Your task to perform on an android device: install app "Google Find My Device" Image 0: 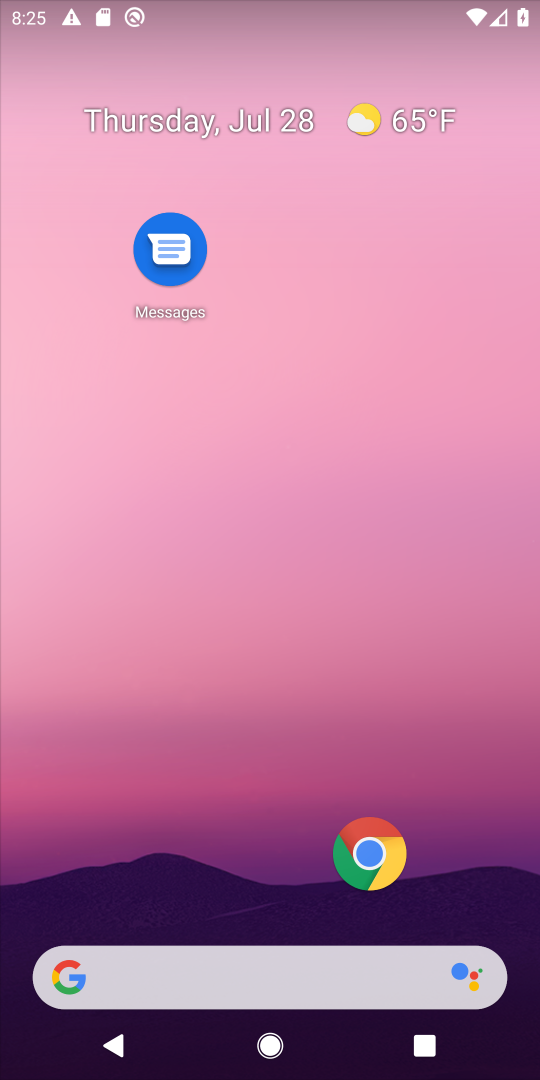
Step 0: drag from (257, 719) to (255, 75)
Your task to perform on an android device: install app "Google Find My Device" Image 1: 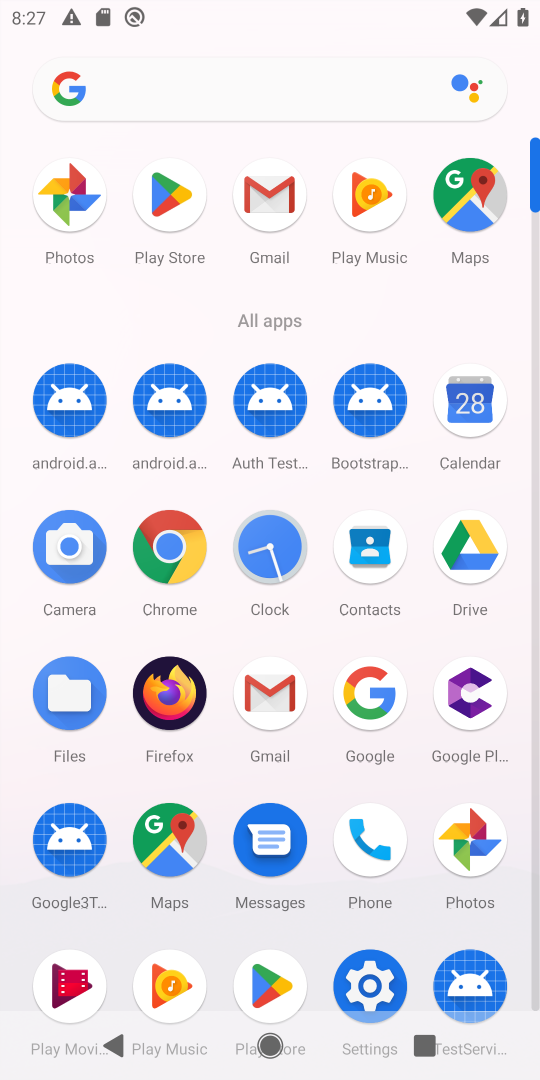
Step 1: click (276, 981)
Your task to perform on an android device: install app "Google Find My Device" Image 2: 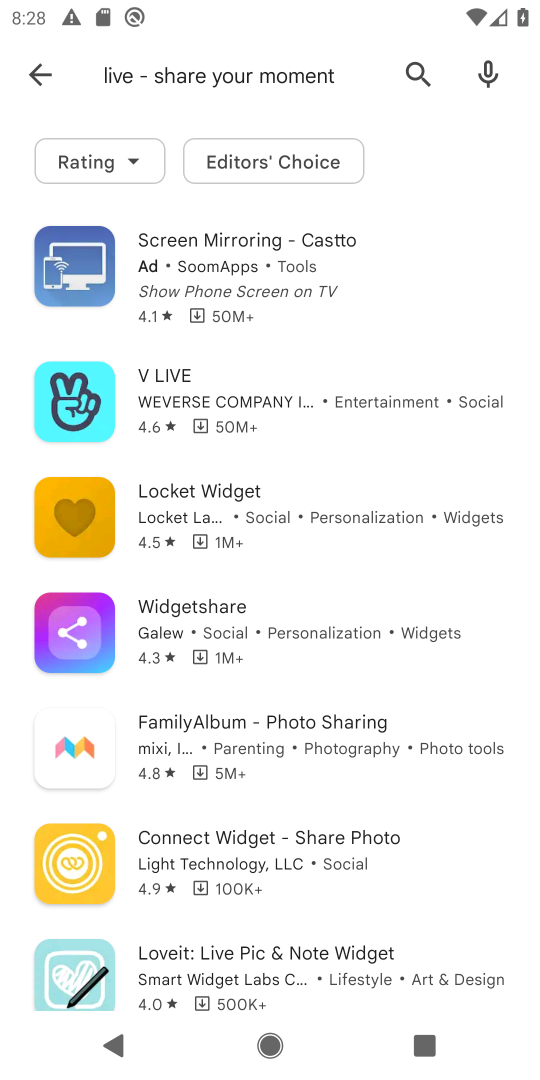
Step 2: click (38, 86)
Your task to perform on an android device: install app "Google Find My Device" Image 3: 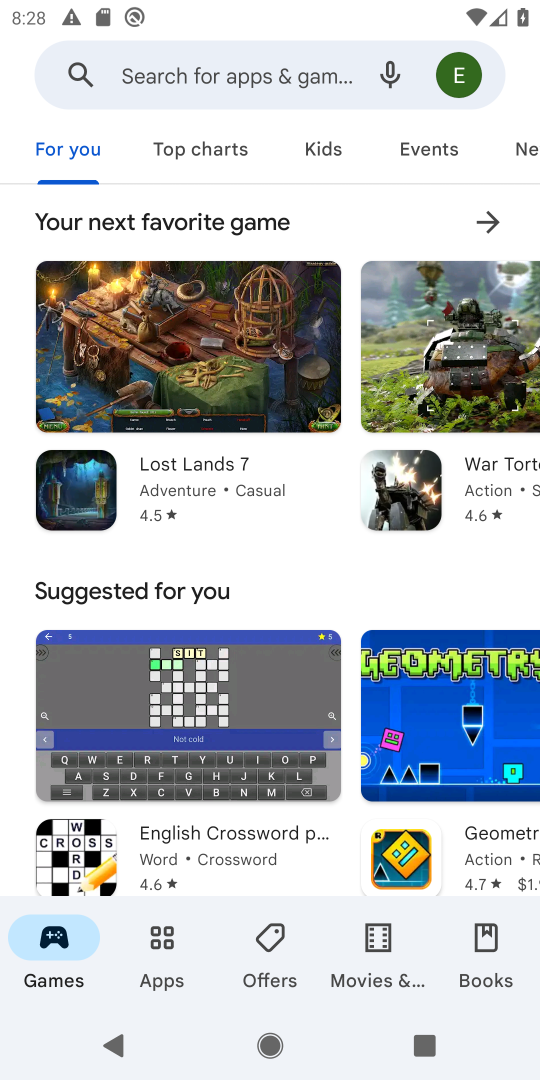
Step 3: click (172, 60)
Your task to perform on an android device: install app "Google Find My Device" Image 4: 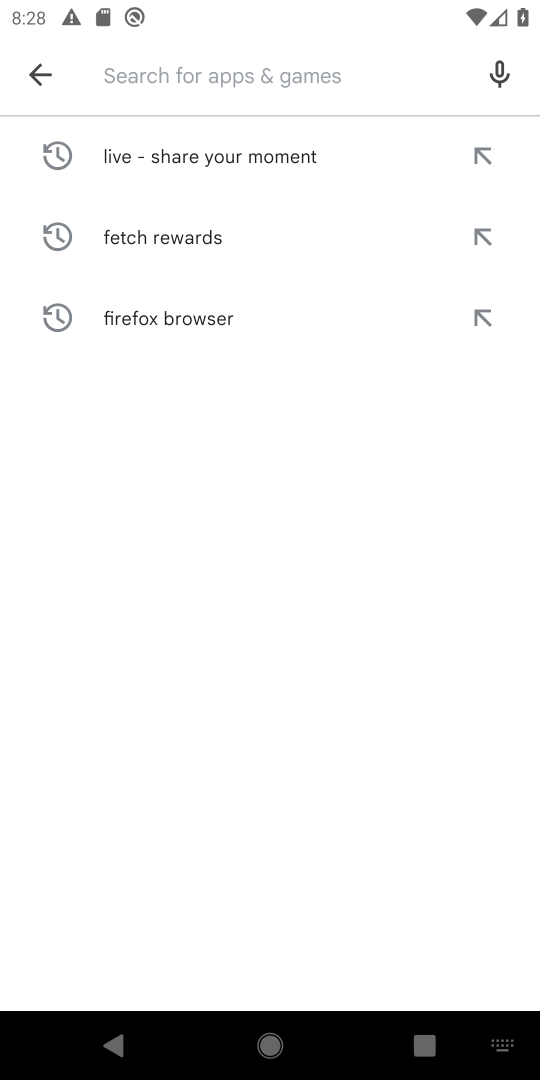
Step 4: type "Google Find My Device"
Your task to perform on an android device: install app "Google Find My Device" Image 5: 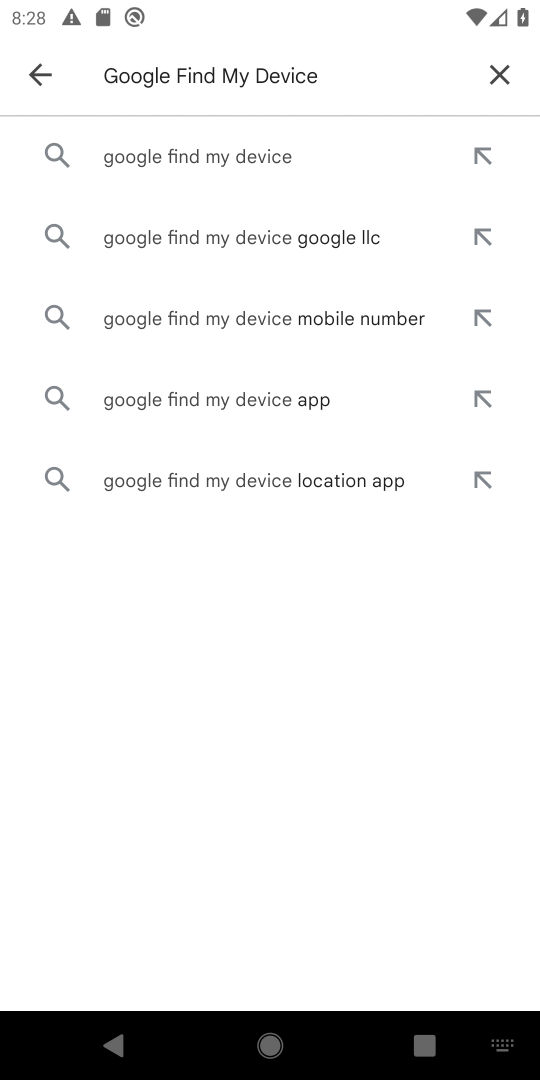
Step 5: click (234, 160)
Your task to perform on an android device: install app "Google Find My Device" Image 6: 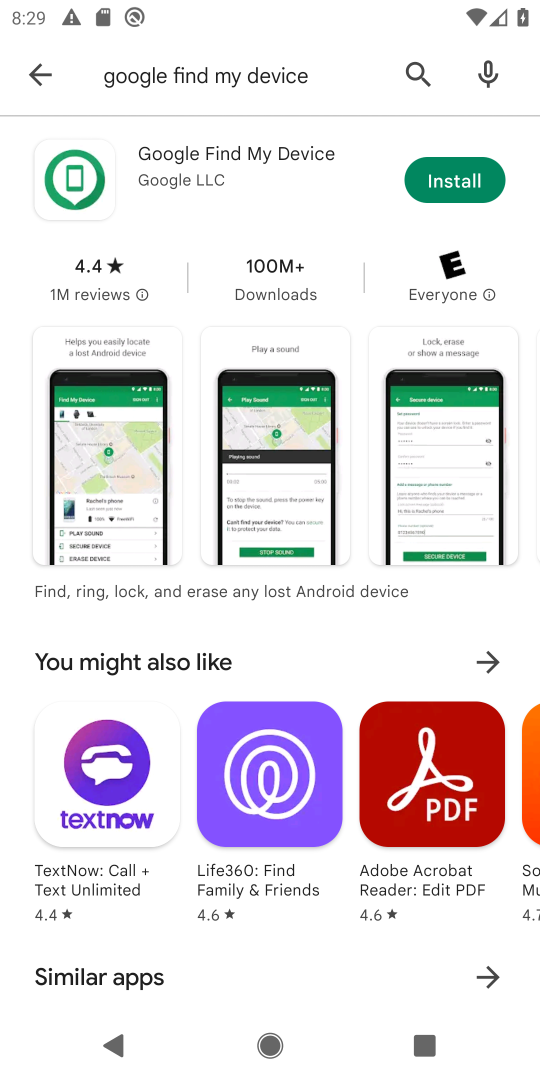
Step 6: click (457, 188)
Your task to perform on an android device: install app "Google Find My Device" Image 7: 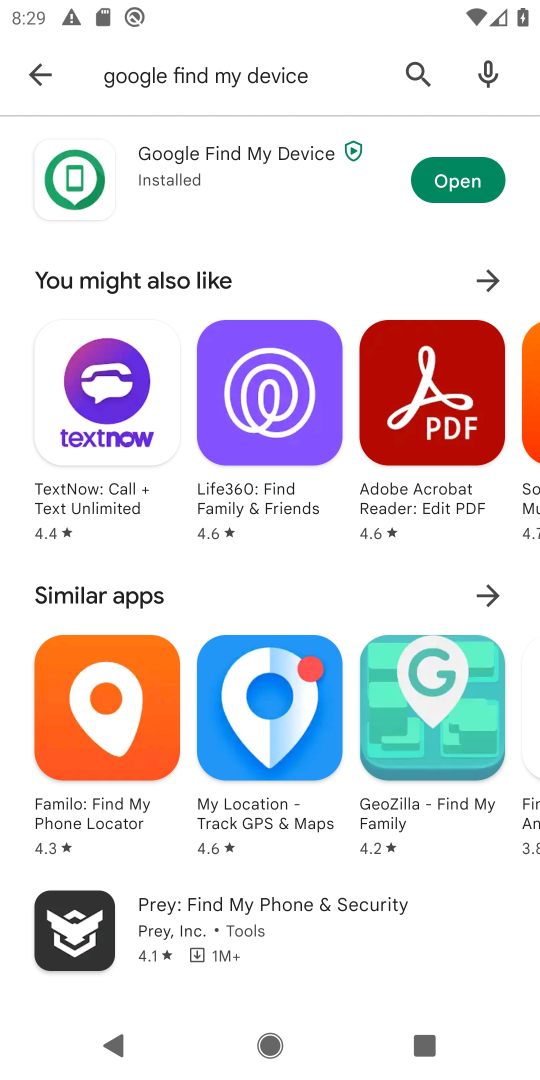
Step 7: task complete